Your task to perform on an android device: open wifi settings Image 0: 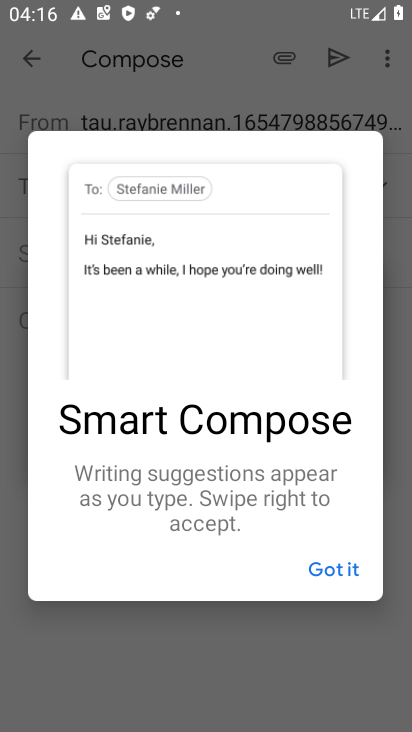
Step 0: press home button
Your task to perform on an android device: open wifi settings Image 1: 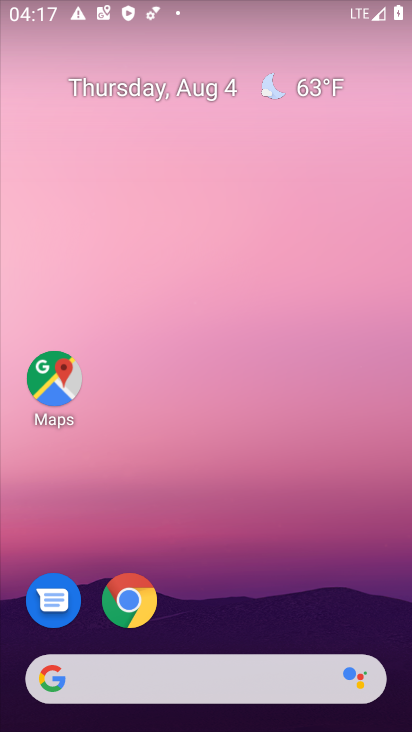
Step 1: drag from (293, 520) to (304, 90)
Your task to perform on an android device: open wifi settings Image 2: 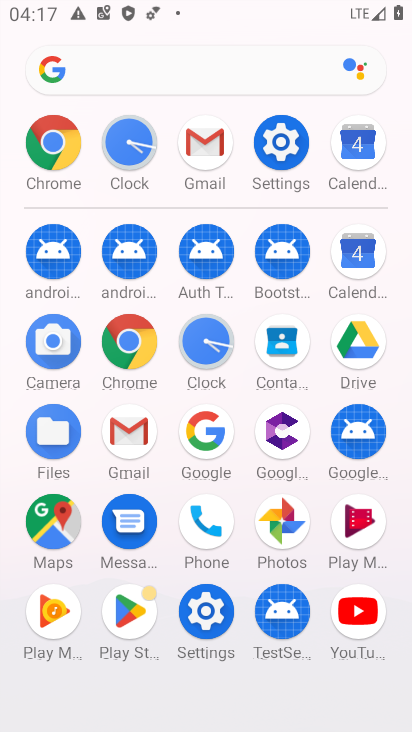
Step 2: click (274, 137)
Your task to perform on an android device: open wifi settings Image 3: 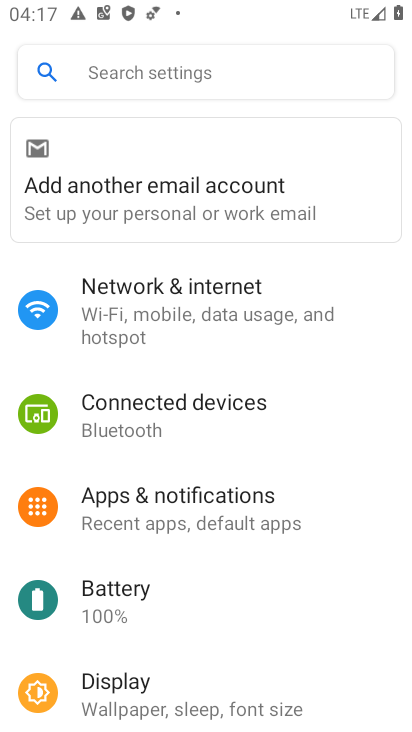
Step 3: click (165, 315)
Your task to perform on an android device: open wifi settings Image 4: 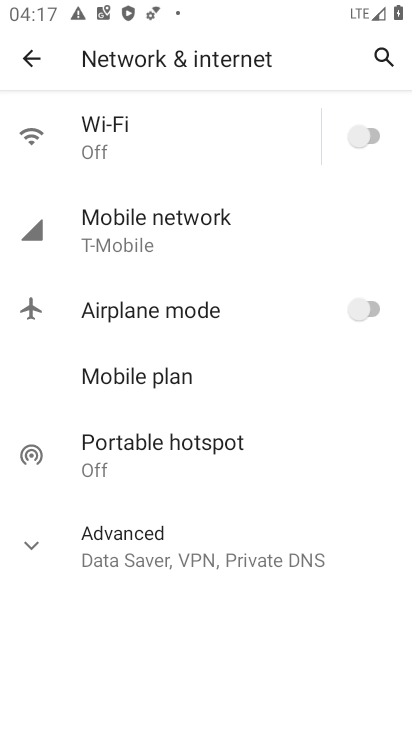
Step 4: click (197, 133)
Your task to perform on an android device: open wifi settings Image 5: 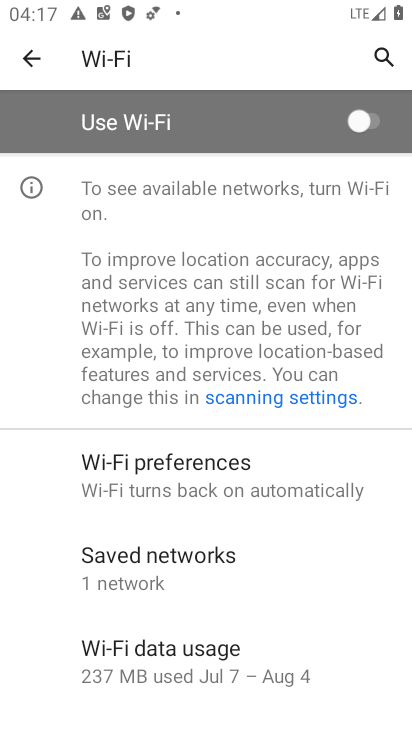
Step 5: click (370, 119)
Your task to perform on an android device: open wifi settings Image 6: 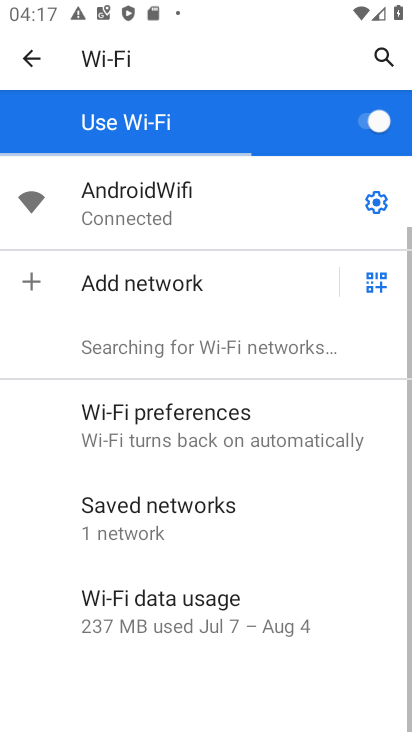
Step 6: click (378, 201)
Your task to perform on an android device: open wifi settings Image 7: 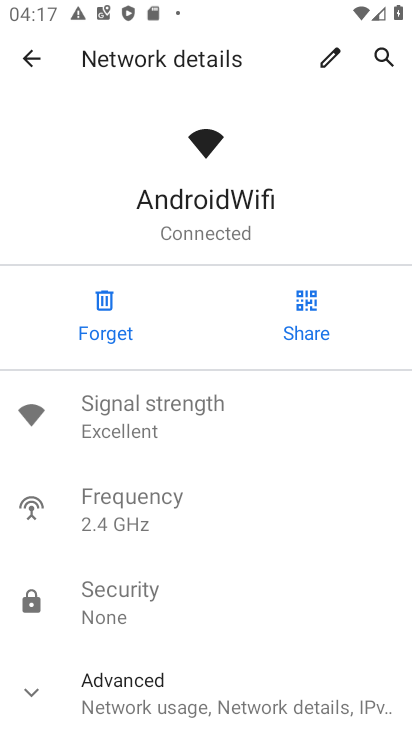
Step 7: task complete